Your task to perform on an android device: Open Google Maps and go to "Timeline" Image 0: 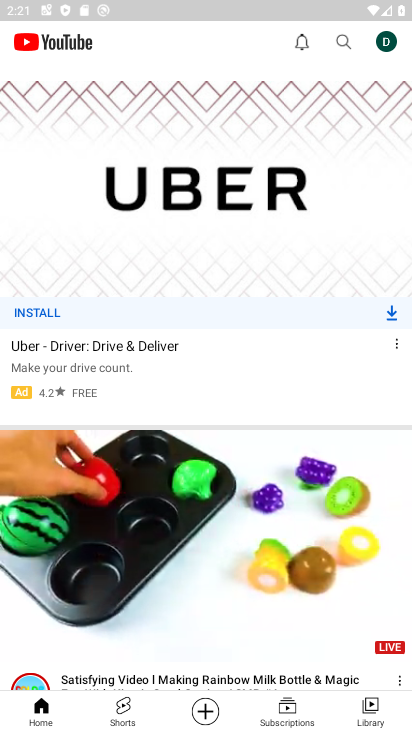
Step 0: press home button
Your task to perform on an android device: Open Google Maps and go to "Timeline" Image 1: 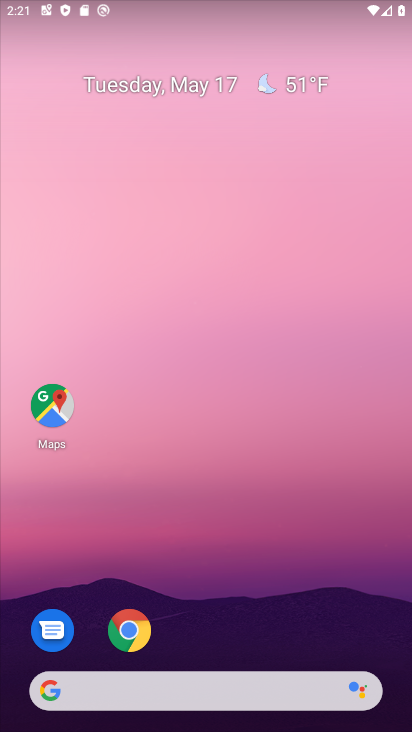
Step 1: click (50, 401)
Your task to perform on an android device: Open Google Maps and go to "Timeline" Image 2: 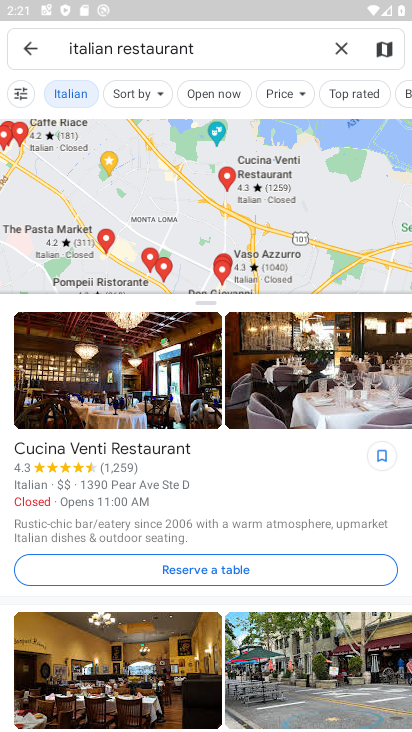
Step 2: click (26, 43)
Your task to perform on an android device: Open Google Maps and go to "Timeline" Image 3: 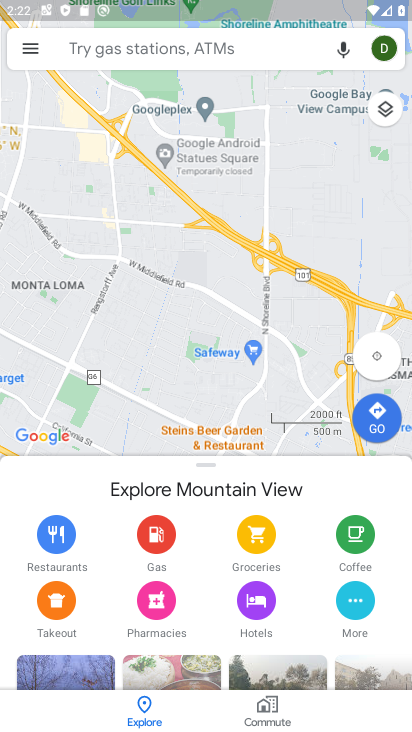
Step 3: click (26, 46)
Your task to perform on an android device: Open Google Maps and go to "Timeline" Image 4: 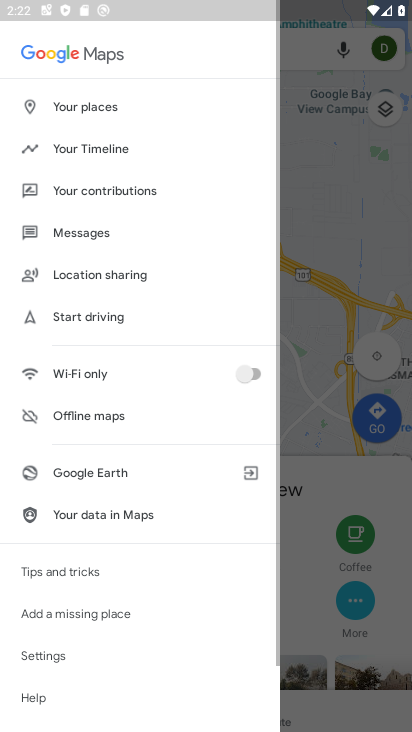
Step 4: click (99, 143)
Your task to perform on an android device: Open Google Maps and go to "Timeline" Image 5: 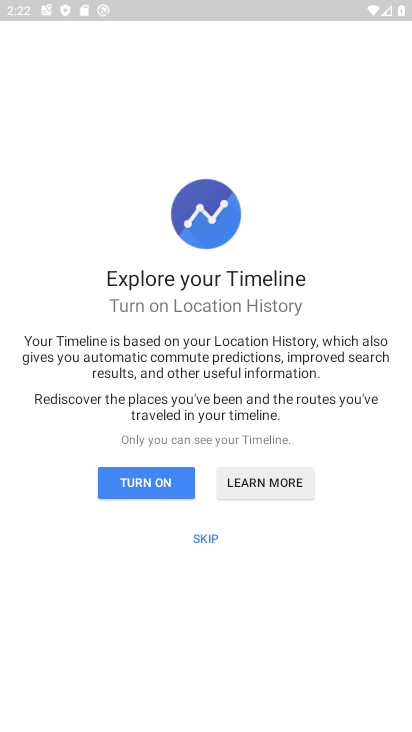
Step 5: task complete